Your task to perform on an android device: turn off notifications in google photos Image 0: 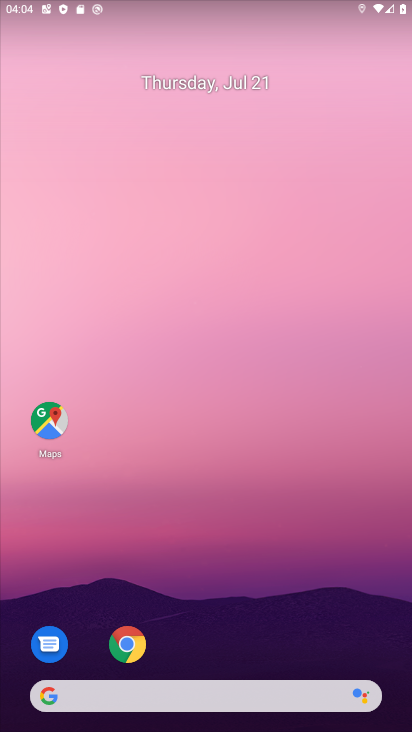
Step 0: drag from (298, 671) to (271, 62)
Your task to perform on an android device: turn off notifications in google photos Image 1: 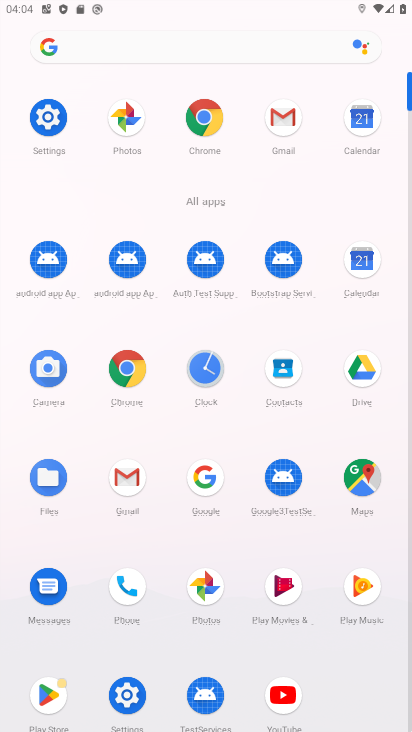
Step 1: click (204, 594)
Your task to perform on an android device: turn off notifications in google photos Image 2: 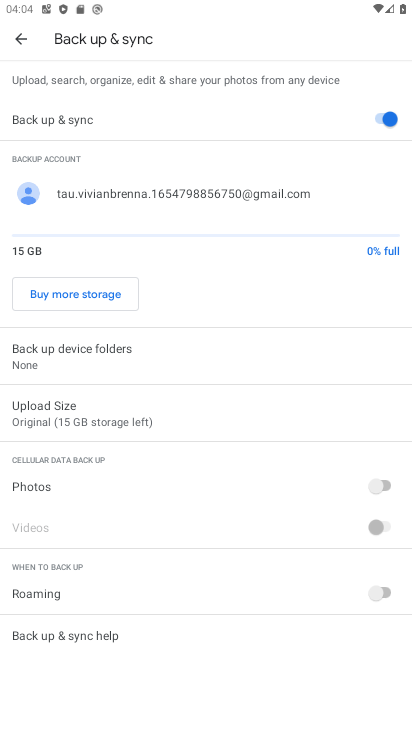
Step 2: click (21, 40)
Your task to perform on an android device: turn off notifications in google photos Image 3: 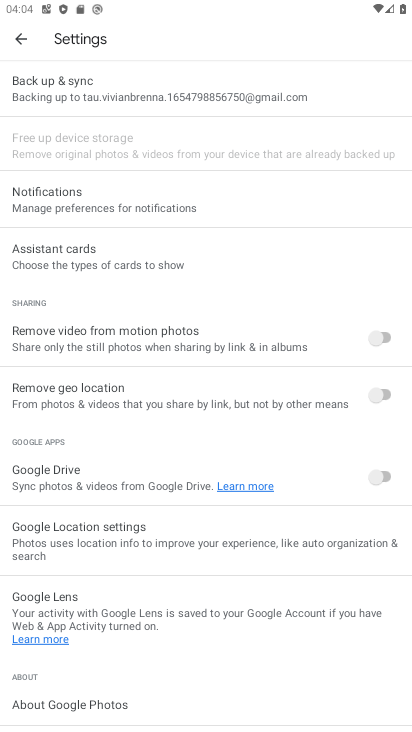
Step 3: click (56, 208)
Your task to perform on an android device: turn off notifications in google photos Image 4: 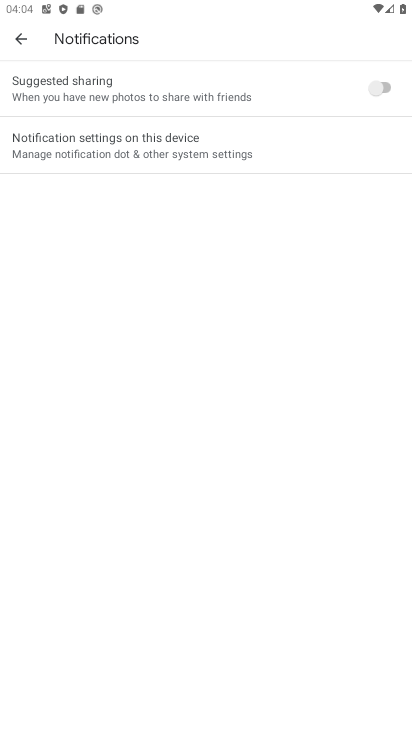
Step 4: click (88, 140)
Your task to perform on an android device: turn off notifications in google photos Image 5: 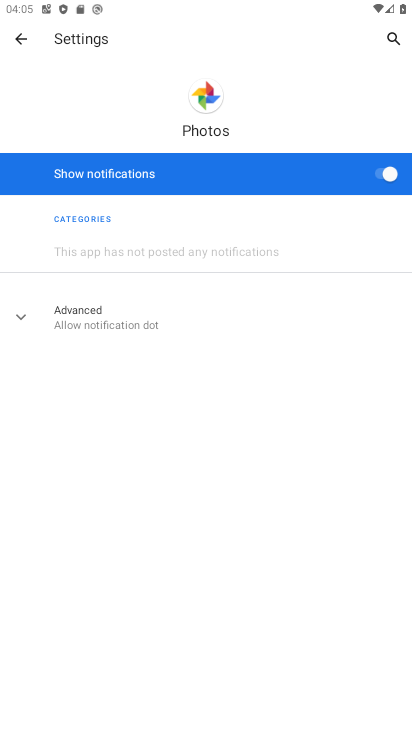
Step 5: click (384, 175)
Your task to perform on an android device: turn off notifications in google photos Image 6: 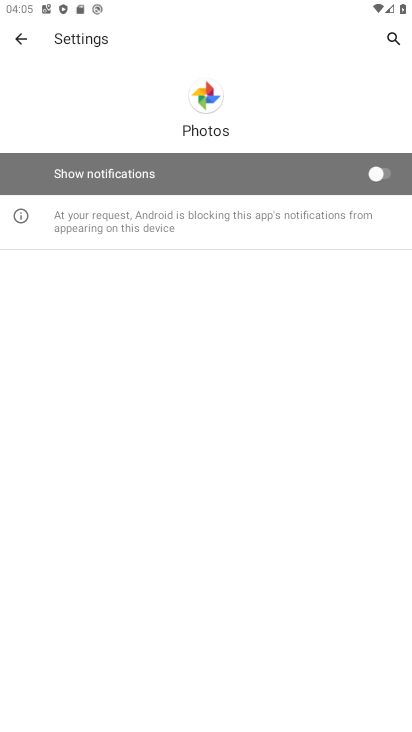
Step 6: task complete